Your task to perform on an android device: Go to Maps Image 0: 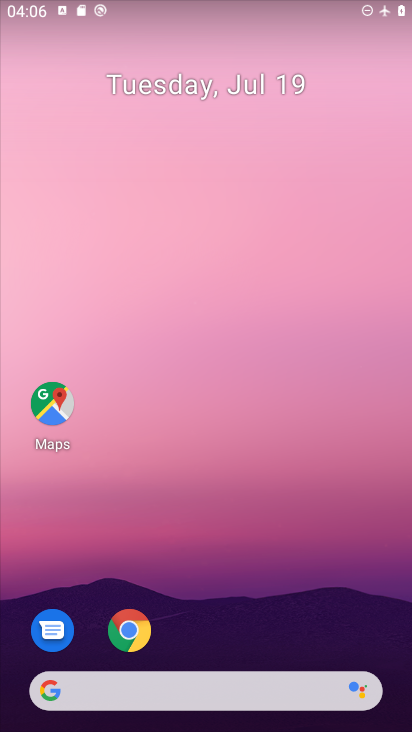
Step 0: click (54, 405)
Your task to perform on an android device: Go to Maps Image 1: 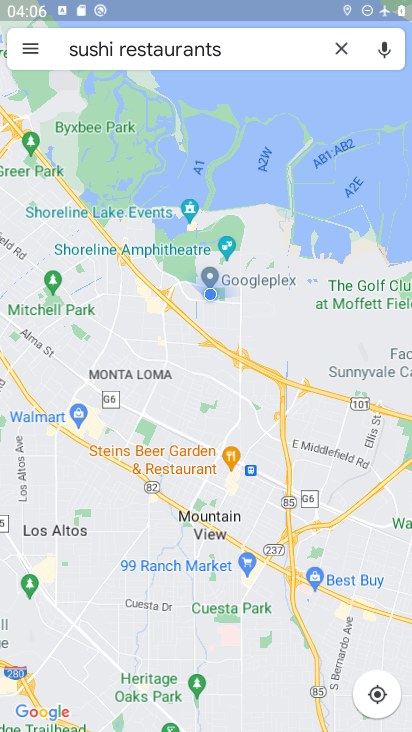
Step 1: task complete